Your task to perform on an android device: Open Google Maps Image 0: 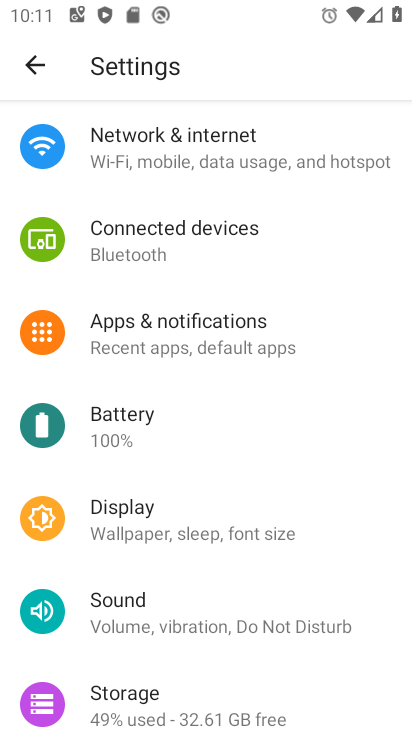
Step 0: press home button
Your task to perform on an android device: Open Google Maps Image 1: 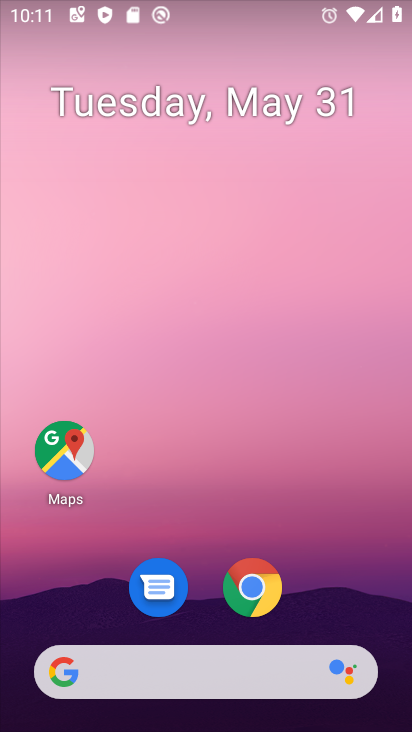
Step 1: drag from (353, 601) to (373, 192)
Your task to perform on an android device: Open Google Maps Image 2: 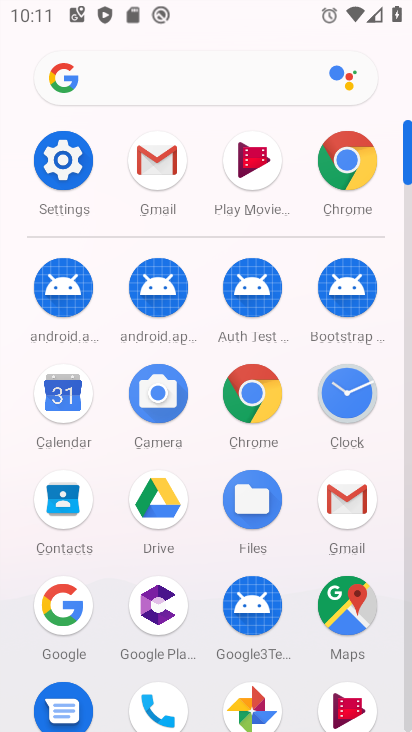
Step 2: click (352, 597)
Your task to perform on an android device: Open Google Maps Image 3: 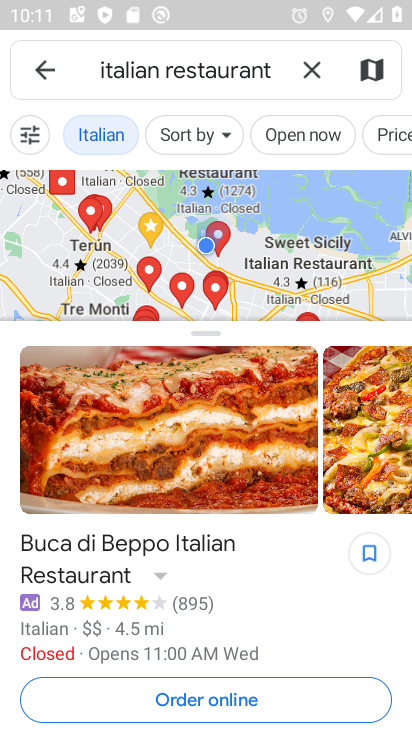
Step 3: task complete